Your task to perform on an android device: open app "DoorDash - Dasher" (install if not already installed) and enter user name: "resistor@inbox.com" and password: "cholera" Image 0: 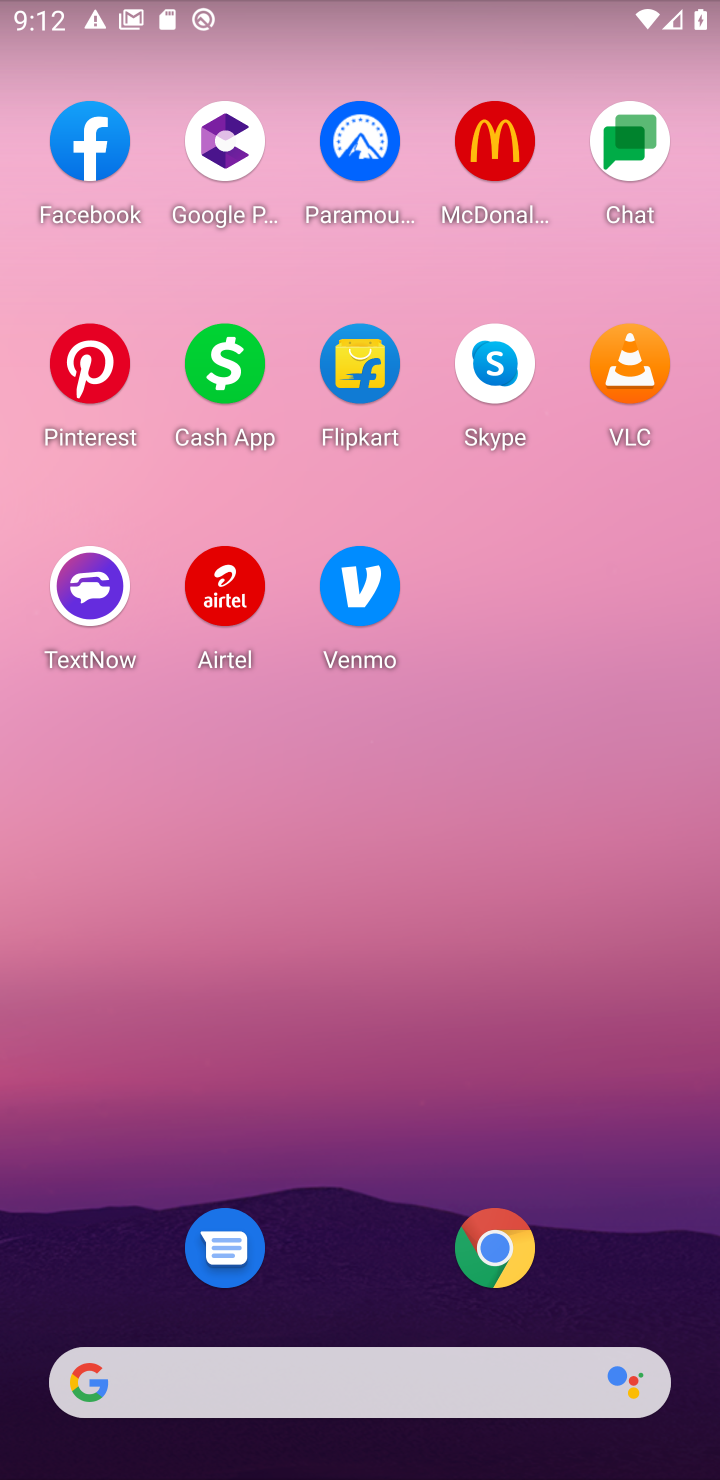
Step 0: press home button
Your task to perform on an android device: open app "DoorDash - Dasher" (install if not already installed) and enter user name: "resistor@inbox.com" and password: "cholera" Image 1: 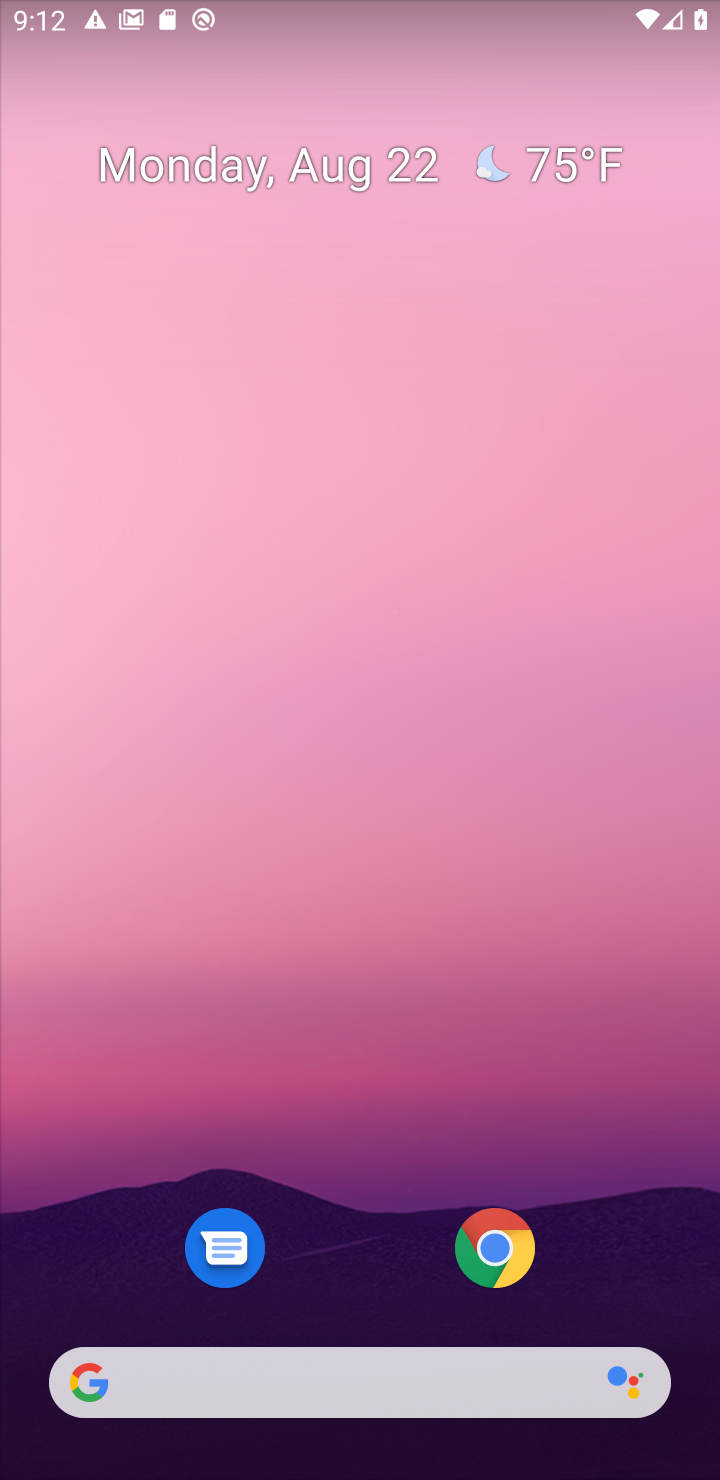
Step 1: drag from (344, 735) to (342, 380)
Your task to perform on an android device: open app "DoorDash - Dasher" (install if not already installed) and enter user name: "resistor@inbox.com" and password: "cholera" Image 2: 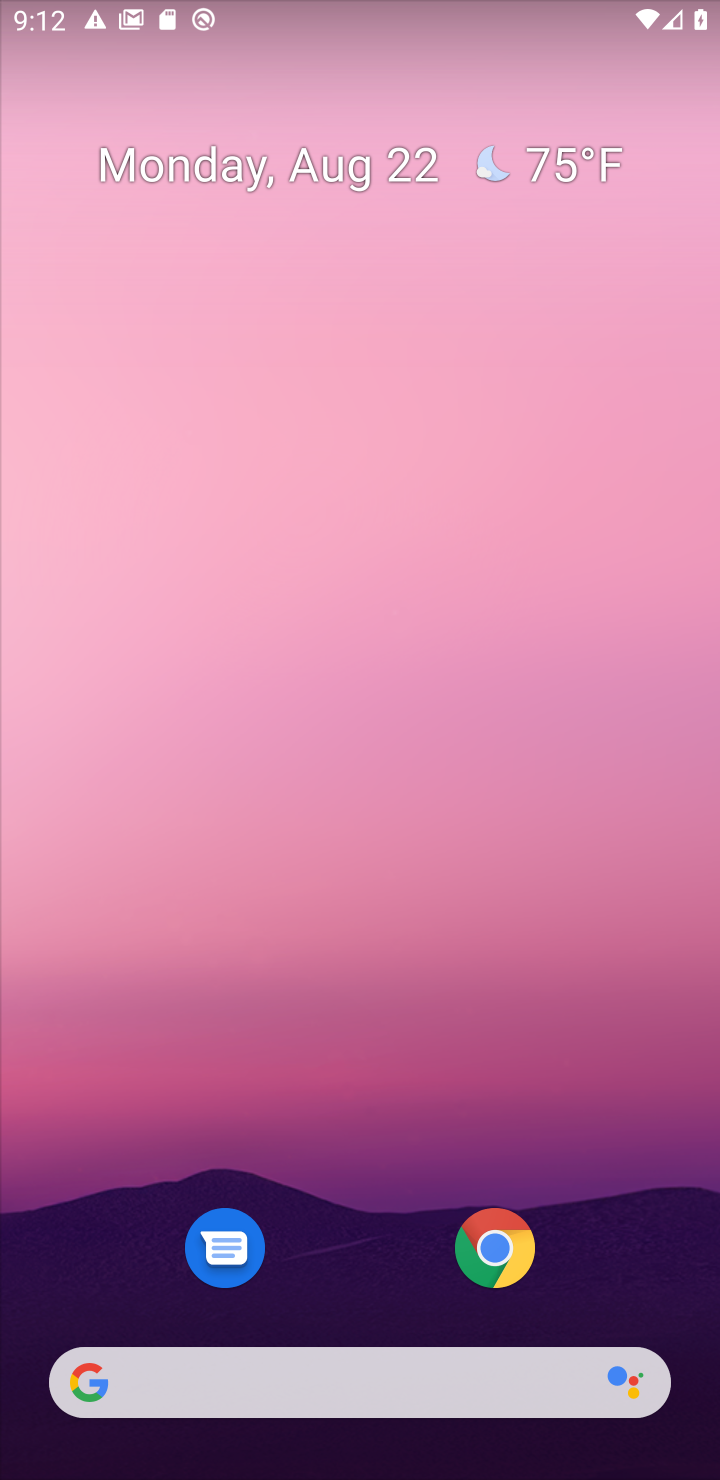
Step 2: drag from (381, 362) to (381, 125)
Your task to perform on an android device: open app "DoorDash - Dasher" (install if not already installed) and enter user name: "resistor@inbox.com" and password: "cholera" Image 3: 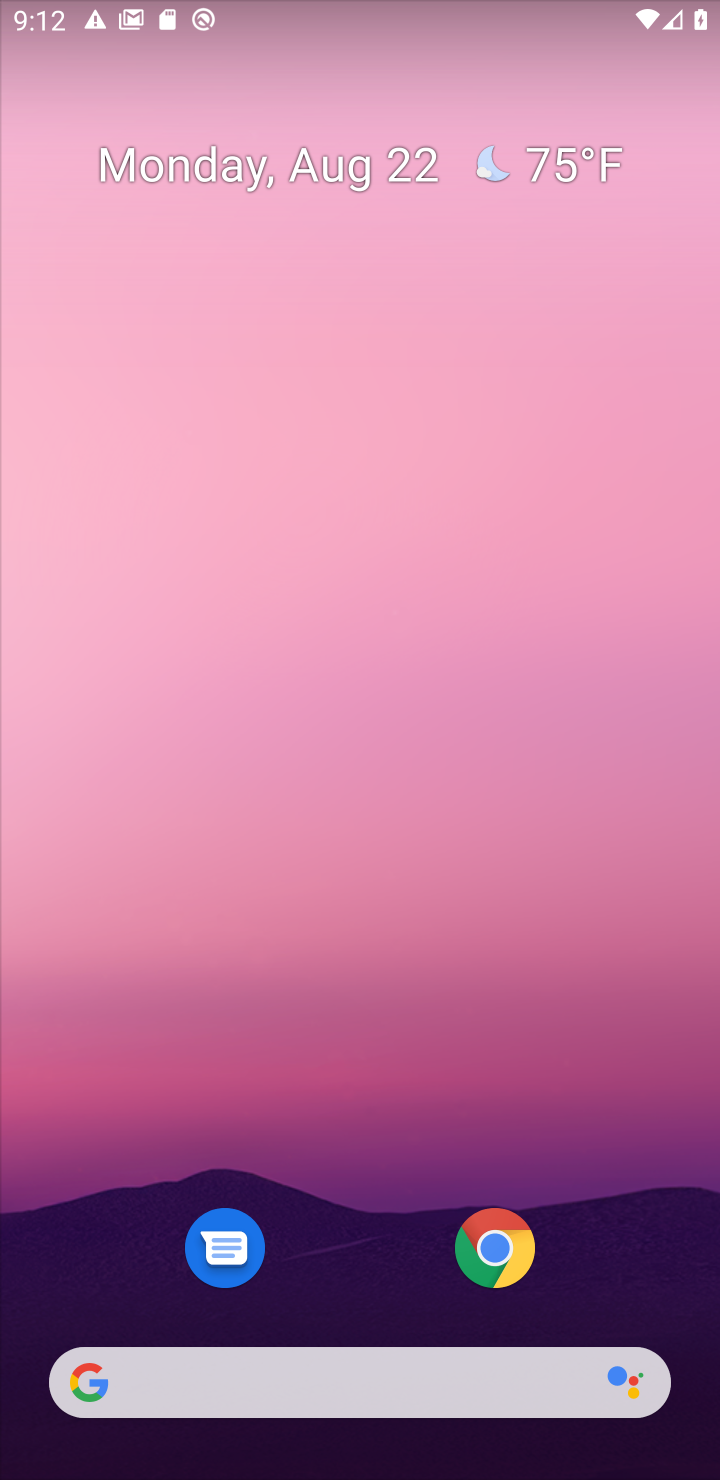
Step 3: drag from (332, 1299) to (351, 43)
Your task to perform on an android device: open app "DoorDash - Dasher" (install if not already installed) and enter user name: "resistor@inbox.com" and password: "cholera" Image 4: 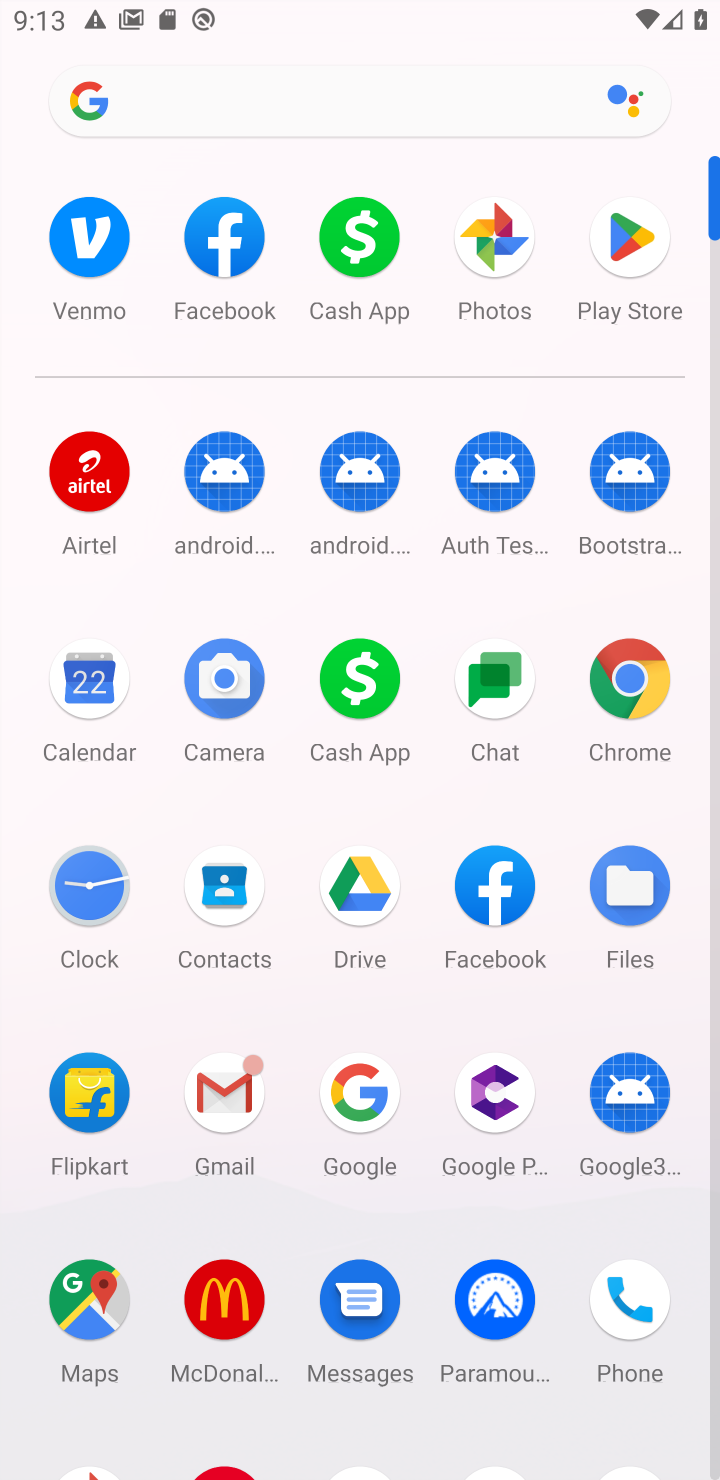
Step 4: click (637, 234)
Your task to perform on an android device: open app "DoorDash - Dasher" (install if not already installed) and enter user name: "resistor@inbox.com" and password: "cholera" Image 5: 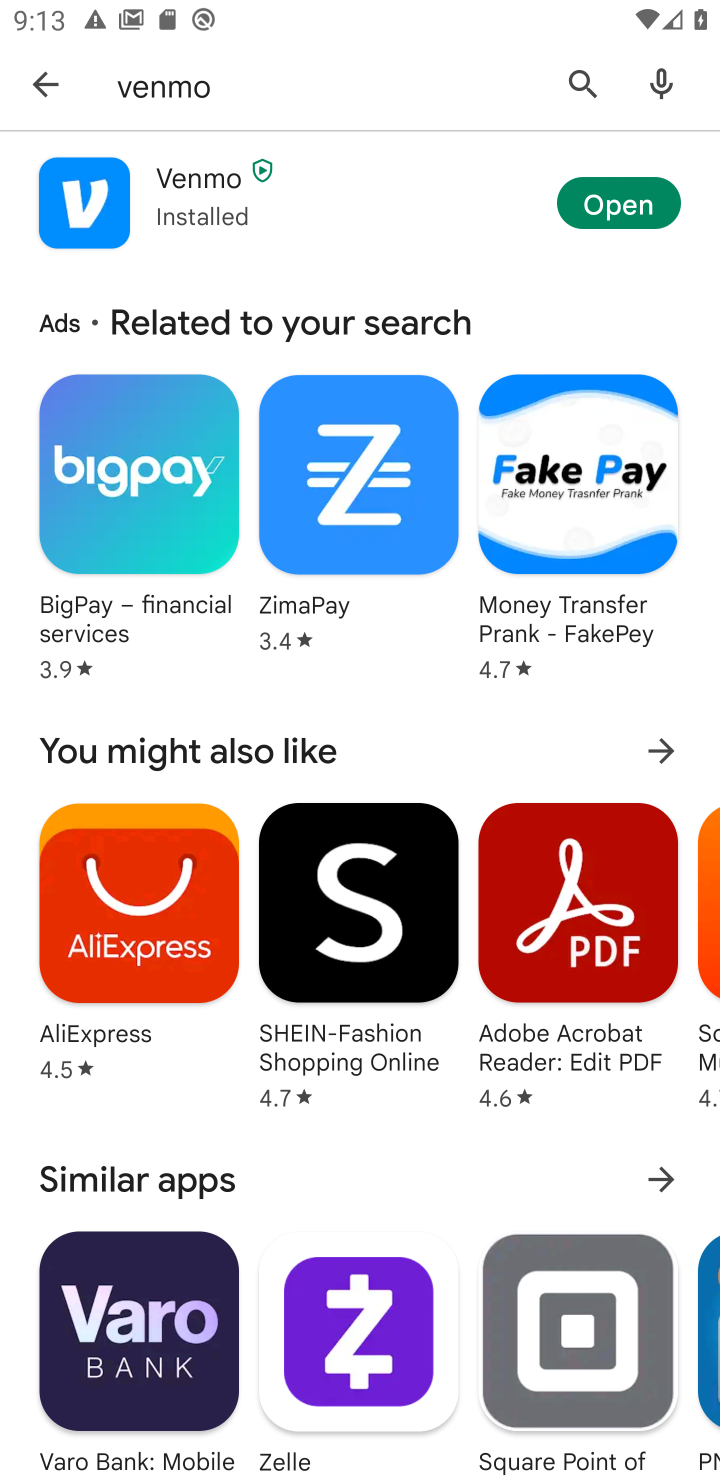
Step 5: click (565, 73)
Your task to perform on an android device: open app "DoorDash - Dasher" (install if not already installed) and enter user name: "resistor@inbox.com" and password: "cholera" Image 6: 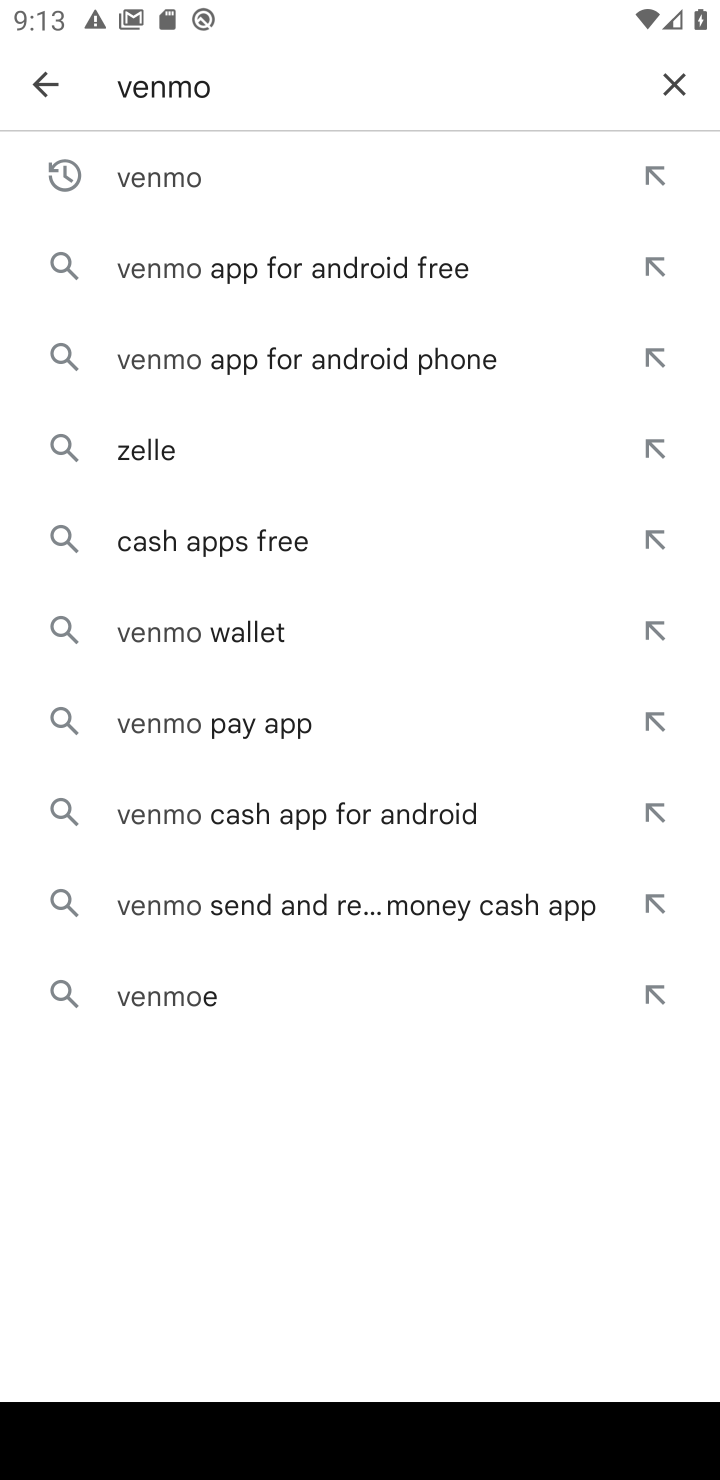
Step 6: click (681, 75)
Your task to perform on an android device: open app "DoorDash - Dasher" (install if not already installed) and enter user name: "resistor@inbox.com" and password: "cholera" Image 7: 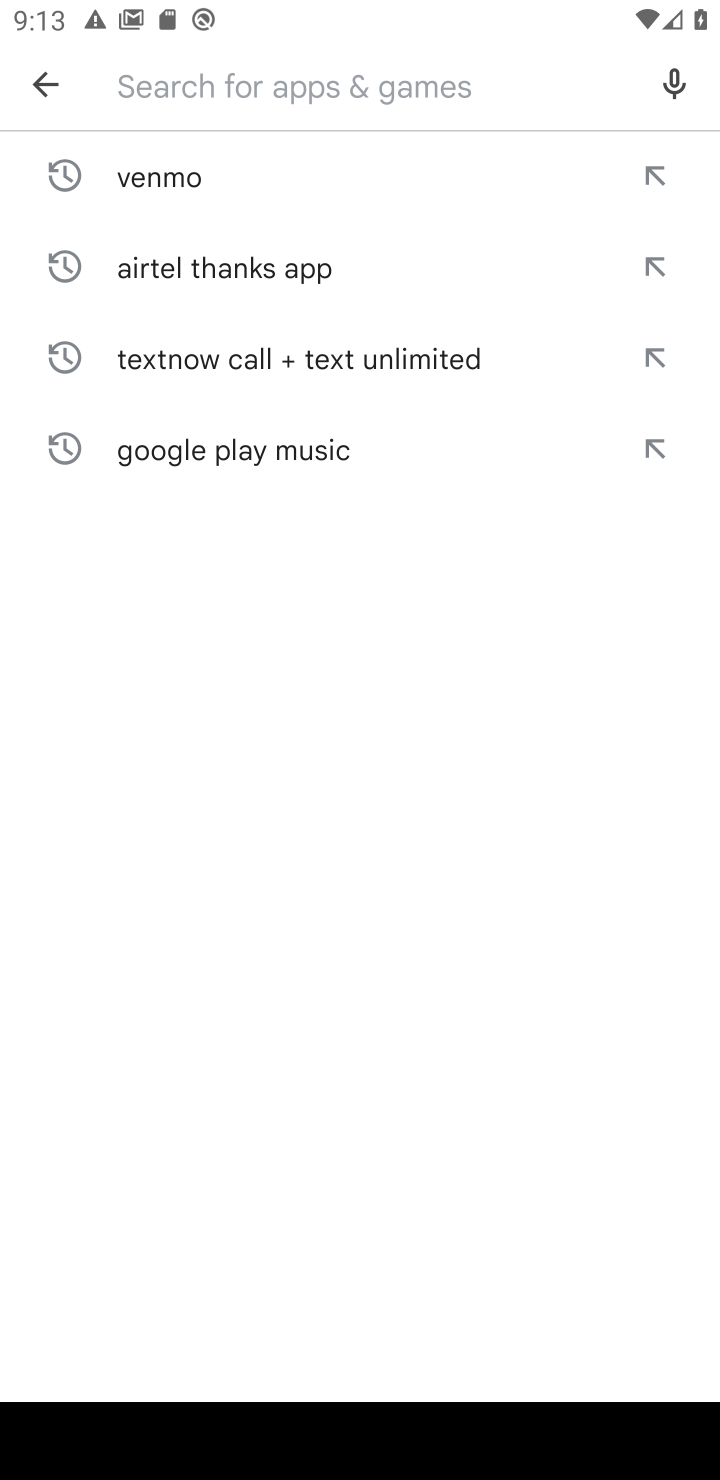
Step 7: type "DoorDash - Dashe"
Your task to perform on an android device: open app "DoorDash - Dasher" (install if not already installed) and enter user name: "resistor@inbox.com" and password: "cholera" Image 8: 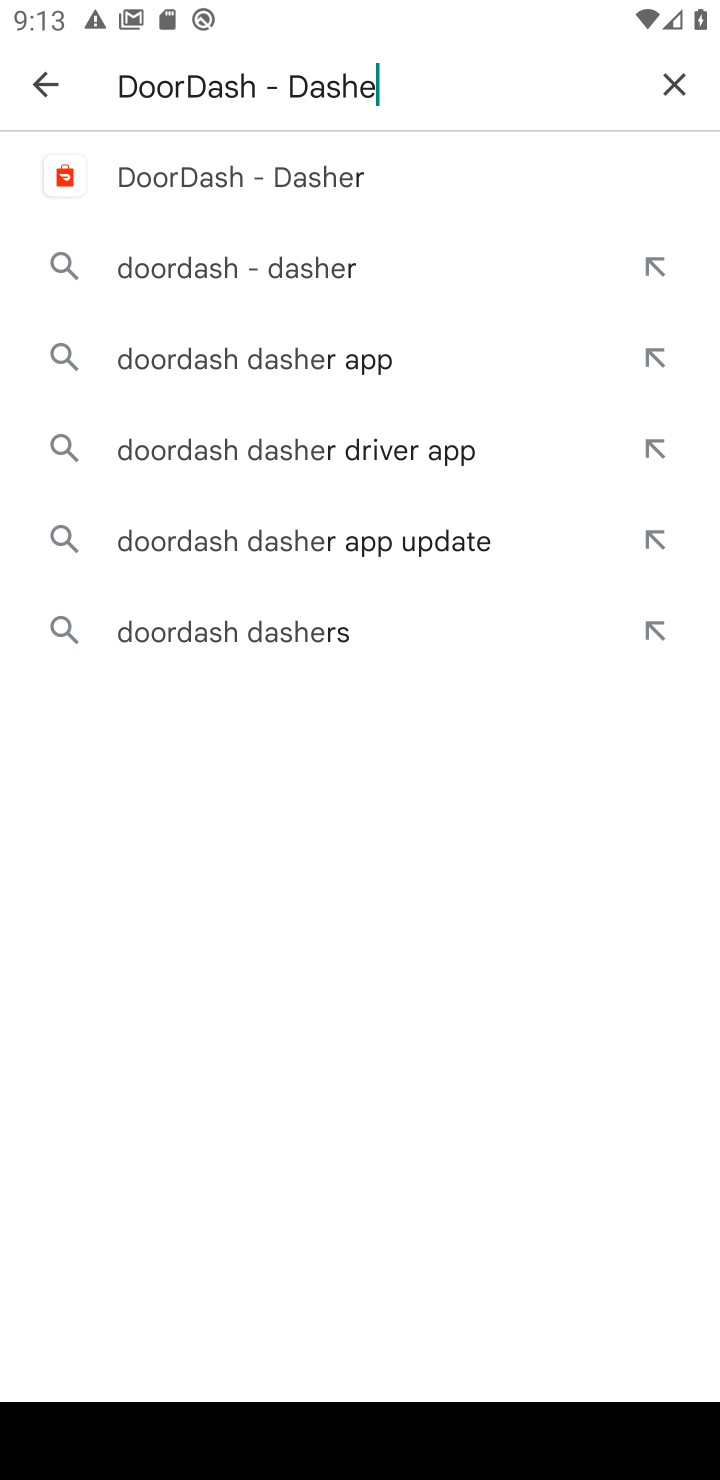
Step 8: click (252, 180)
Your task to perform on an android device: open app "DoorDash - Dasher" (install if not already installed) and enter user name: "resistor@inbox.com" and password: "cholera" Image 9: 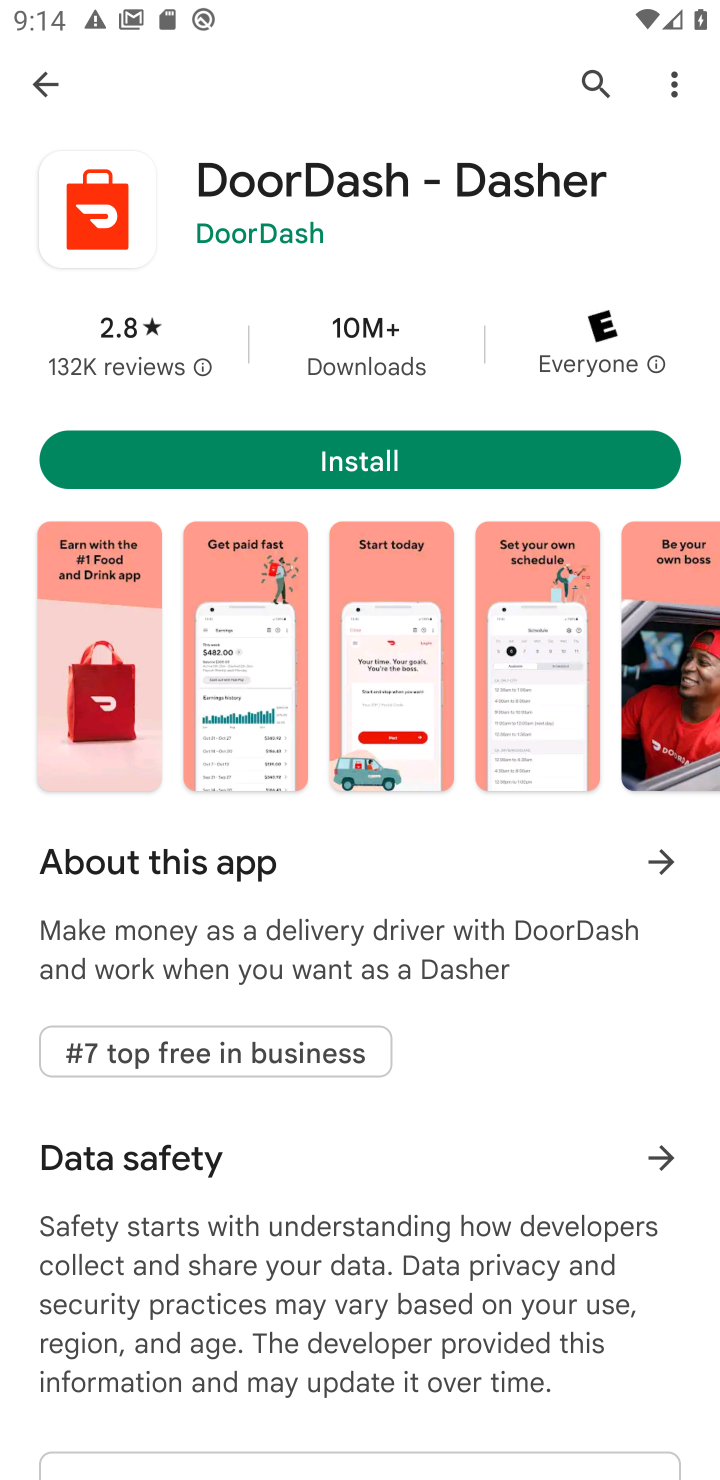
Step 9: click (368, 455)
Your task to perform on an android device: open app "DoorDash - Dasher" (install if not already installed) and enter user name: "resistor@inbox.com" and password: "cholera" Image 10: 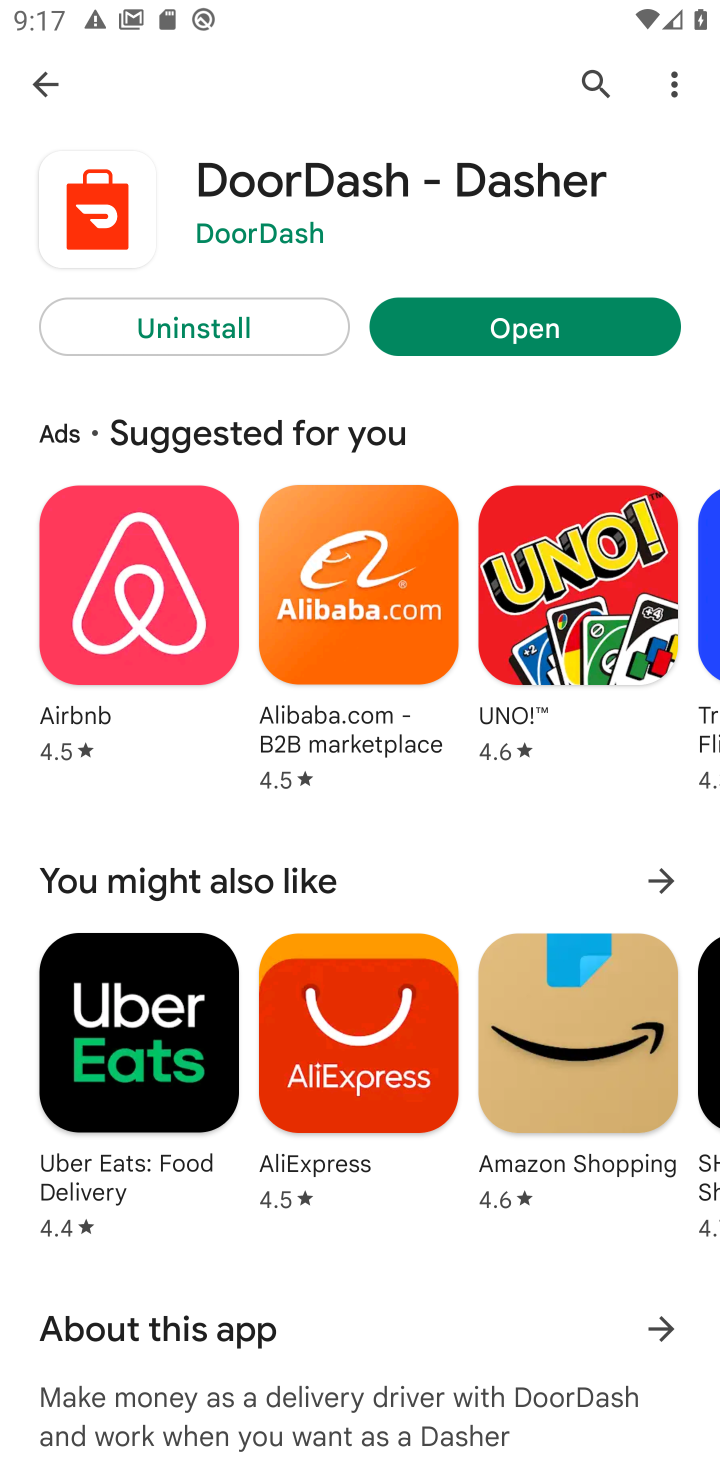
Step 10: click (509, 324)
Your task to perform on an android device: open app "DoorDash - Dasher" (install if not already installed) and enter user name: "resistor@inbox.com" and password: "cholera" Image 11: 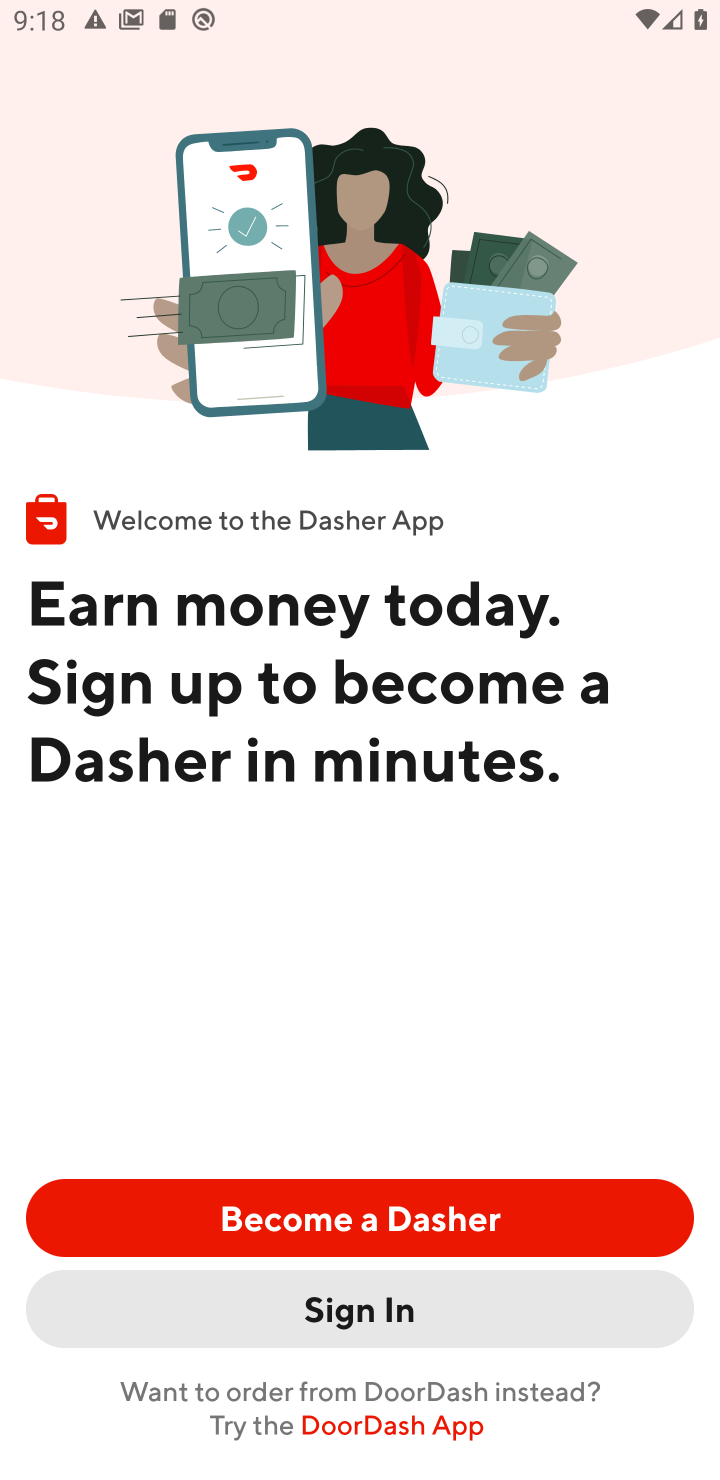
Step 11: click (339, 1322)
Your task to perform on an android device: open app "DoorDash - Dasher" (install if not already installed) and enter user name: "resistor@inbox.com" and password: "cholera" Image 12: 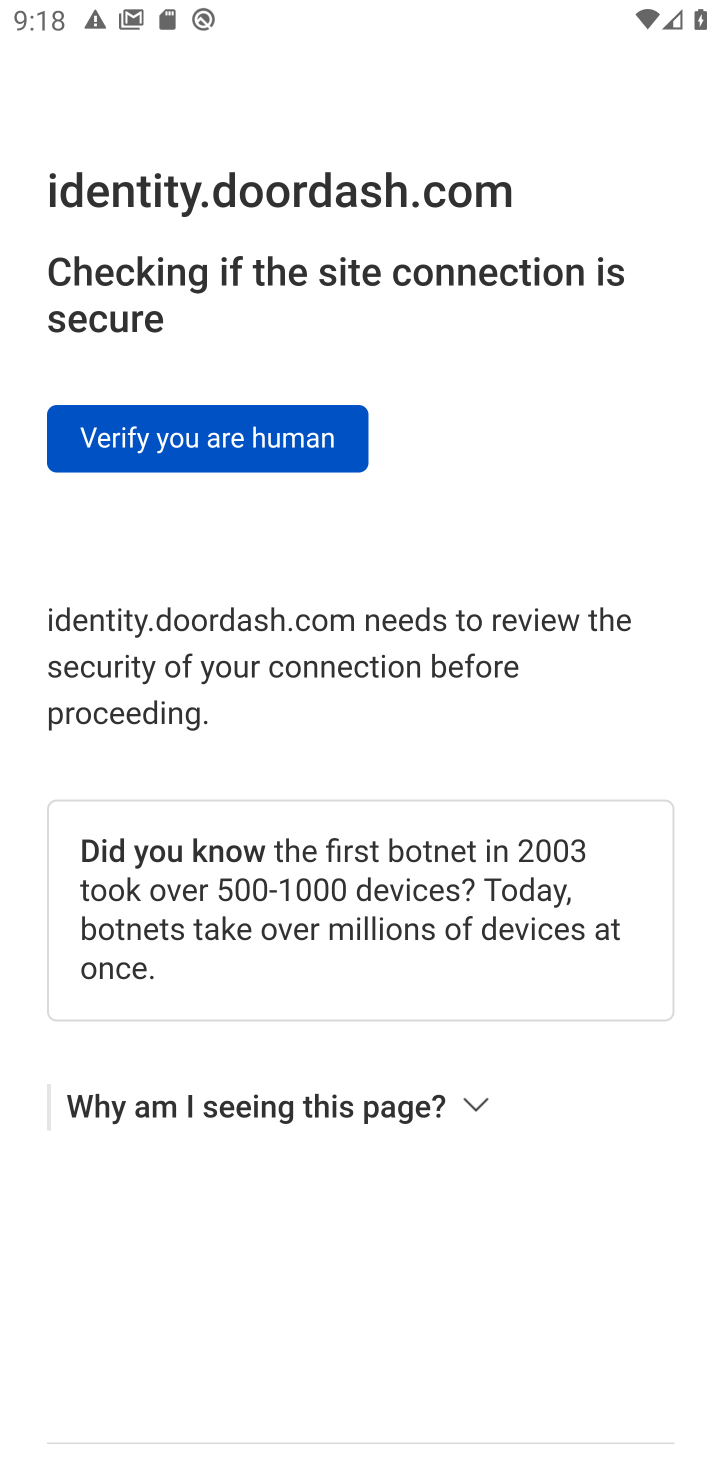
Step 12: click (225, 443)
Your task to perform on an android device: open app "DoorDash - Dasher" (install if not already installed) and enter user name: "resistor@inbox.com" and password: "cholera" Image 13: 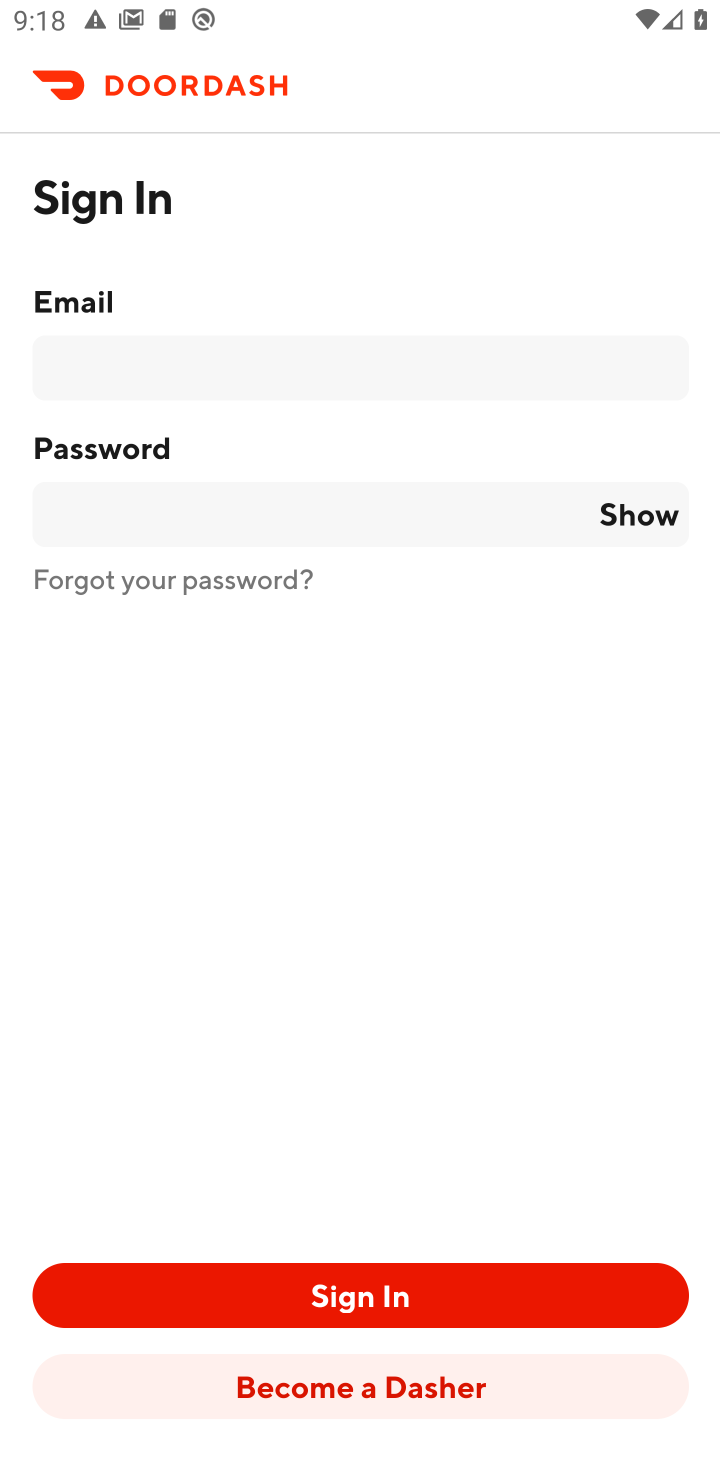
Step 13: click (344, 373)
Your task to perform on an android device: open app "DoorDash - Dasher" (install if not already installed) and enter user name: "resistor@inbox.com" and password: "cholera" Image 14: 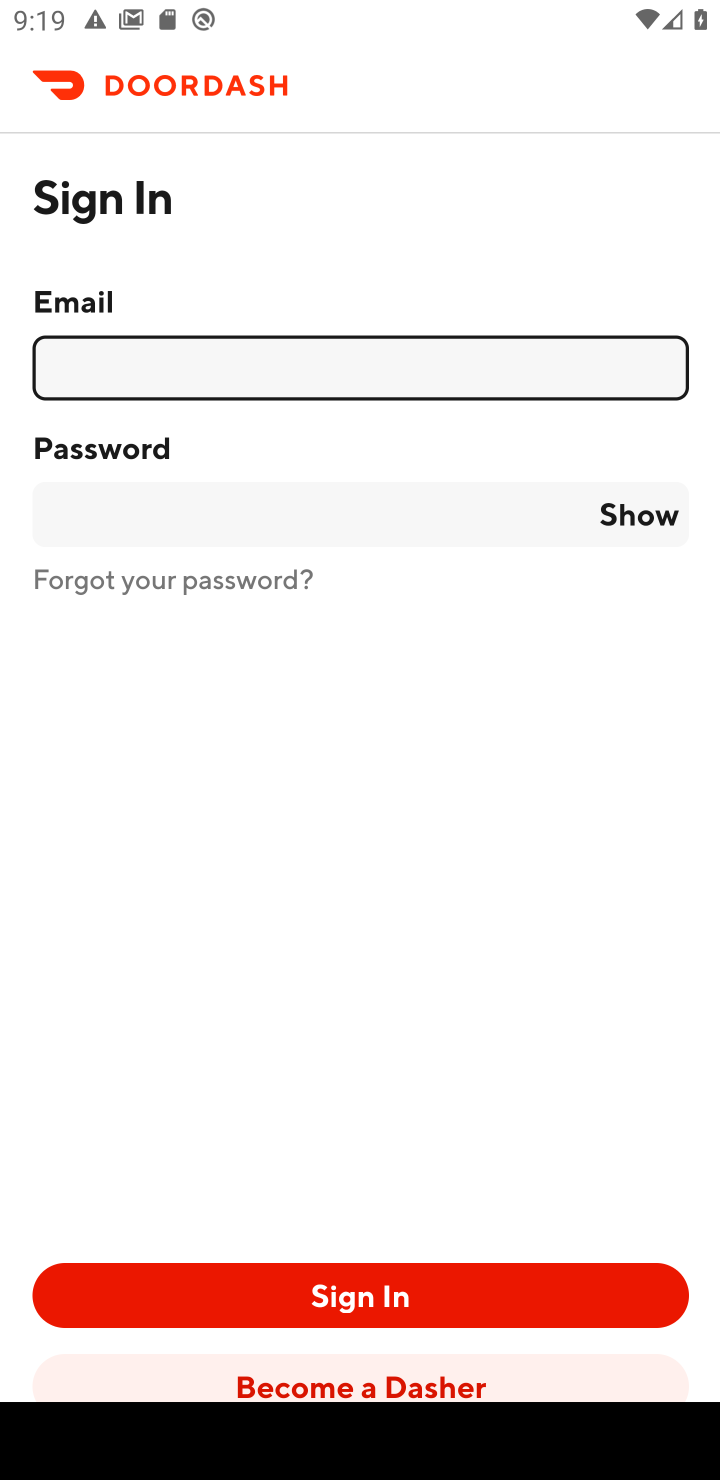
Step 14: type "resistor@inbox.com"
Your task to perform on an android device: open app "DoorDash - Dasher" (install if not already installed) and enter user name: "resistor@inbox.com" and password: "cholera" Image 15: 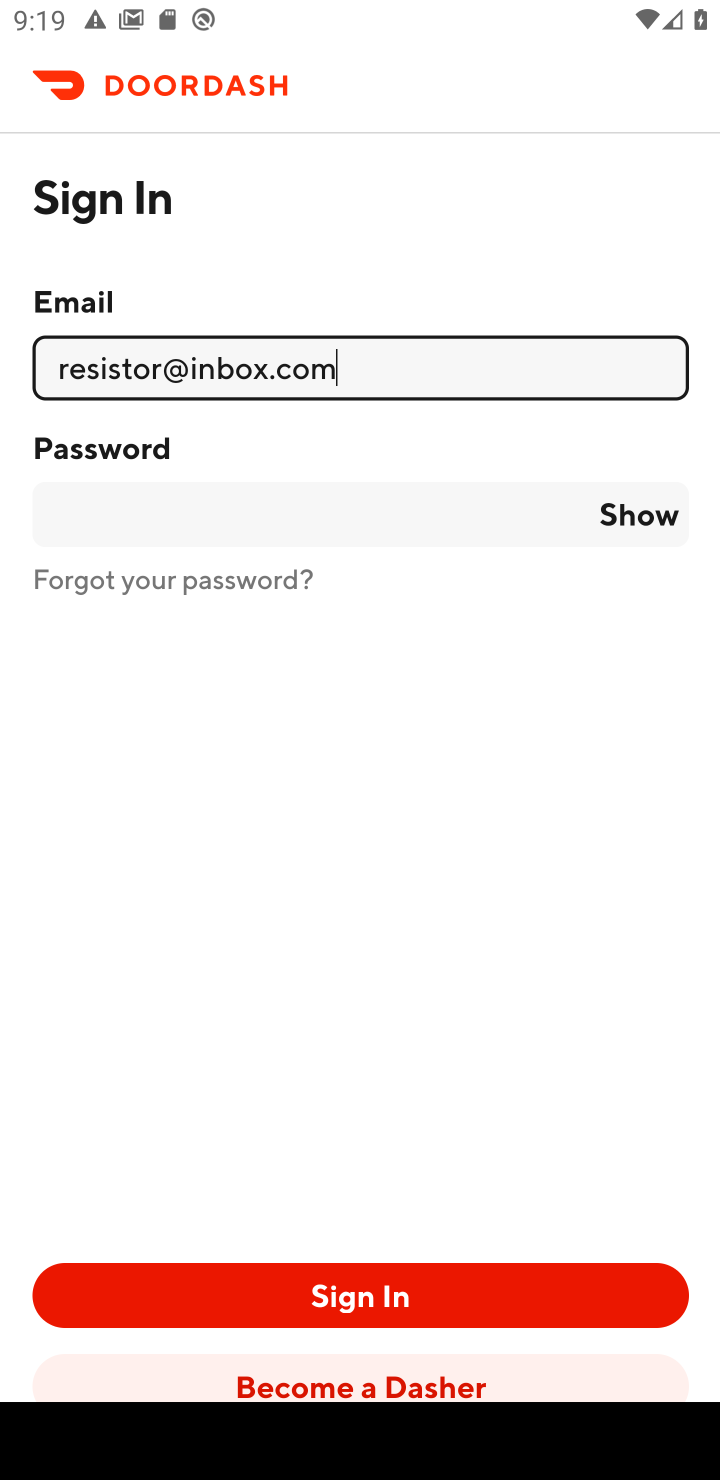
Step 15: click (161, 499)
Your task to perform on an android device: open app "DoorDash - Dasher" (install if not already installed) and enter user name: "resistor@inbox.com" and password: "cholera" Image 16: 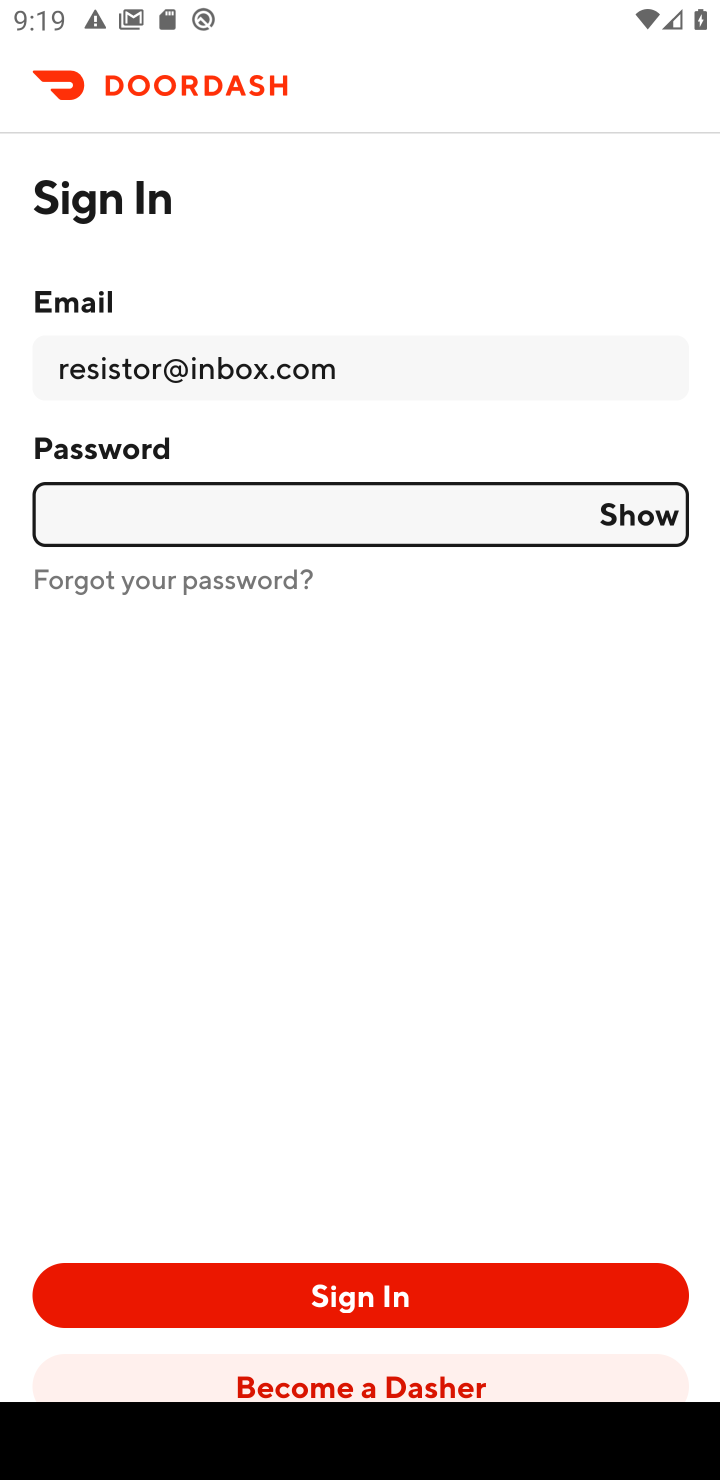
Step 16: type "cholera"
Your task to perform on an android device: open app "DoorDash - Dasher" (install if not already installed) and enter user name: "resistor@inbox.com" and password: "cholera" Image 17: 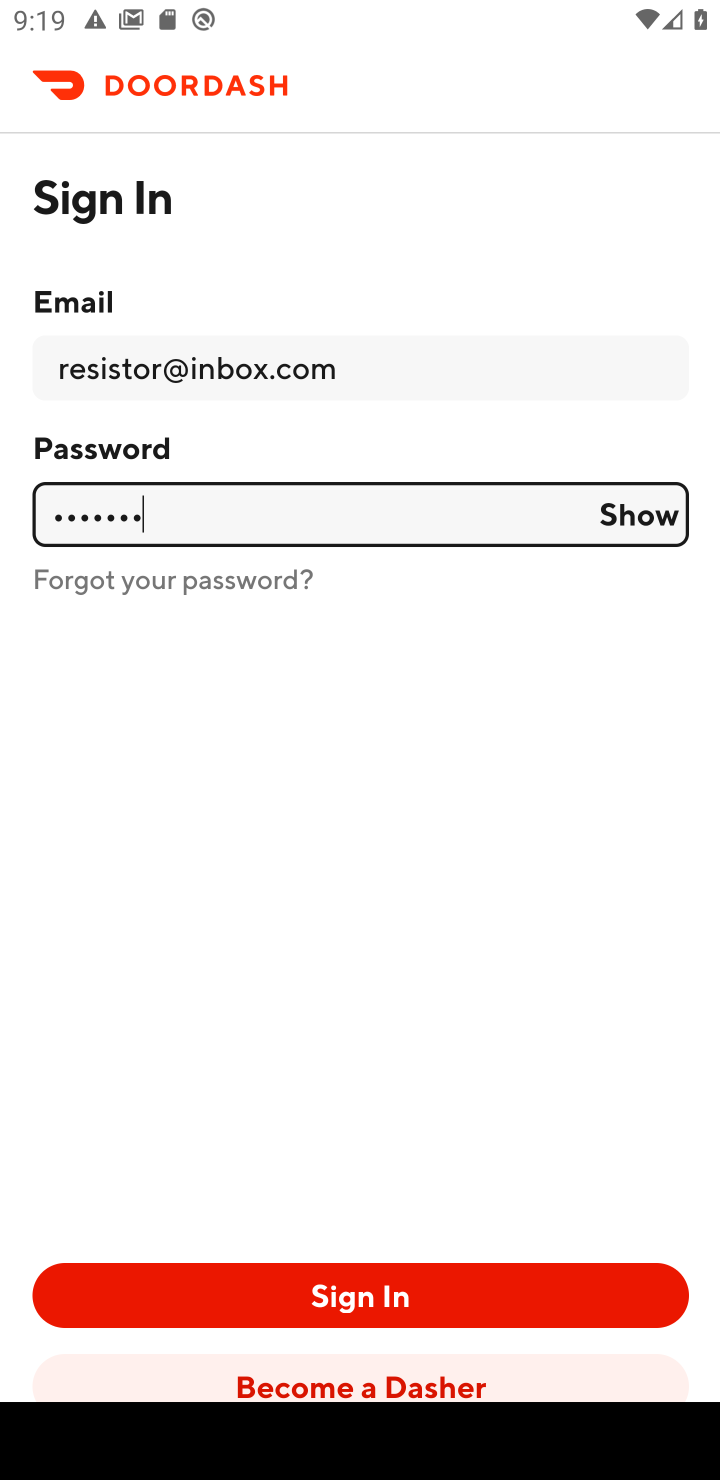
Step 17: task complete